Your task to perform on an android device: check the backup settings in the google photos Image 0: 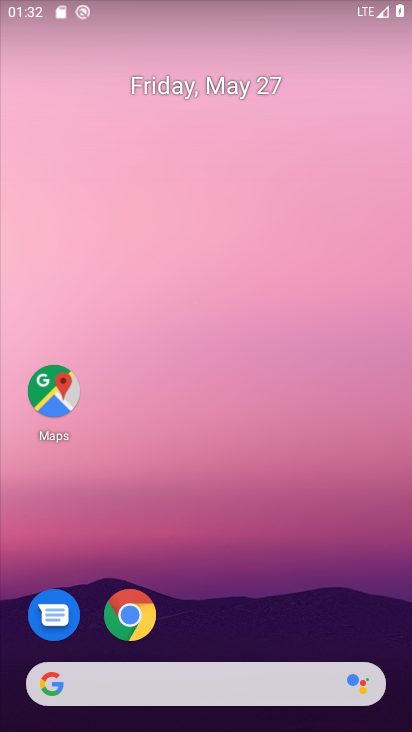
Step 0: drag from (326, 601) to (327, 258)
Your task to perform on an android device: check the backup settings in the google photos Image 1: 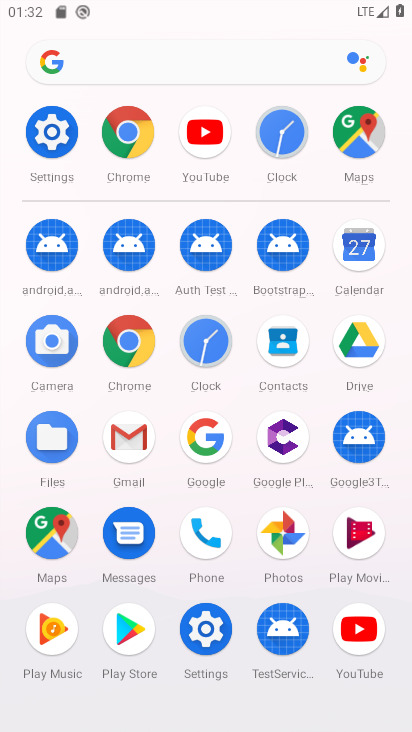
Step 1: click (286, 555)
Your task to perform on an android device: check the backup settings in the google photos Image 2: 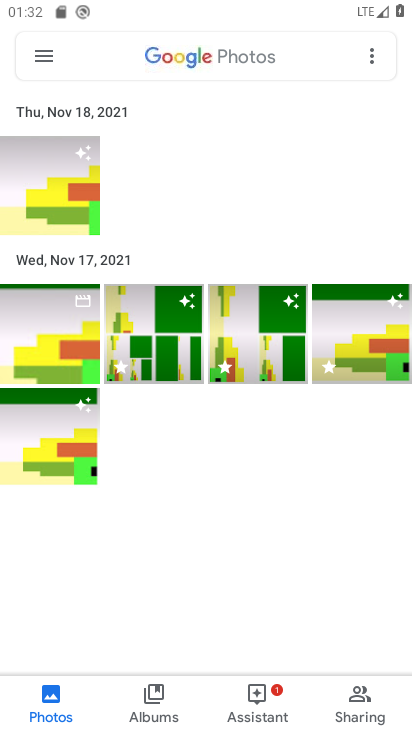
Step 2: click (46, 63)
Your task to perform on an android device: check the backup settings in the google photos Image 3: 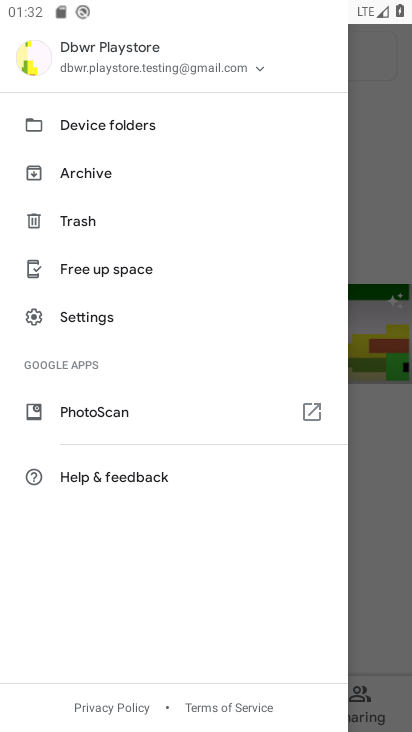
Step 3: click (155, 320)
Your task to perform on an android device: check the backup settings in the google photos Image 4: 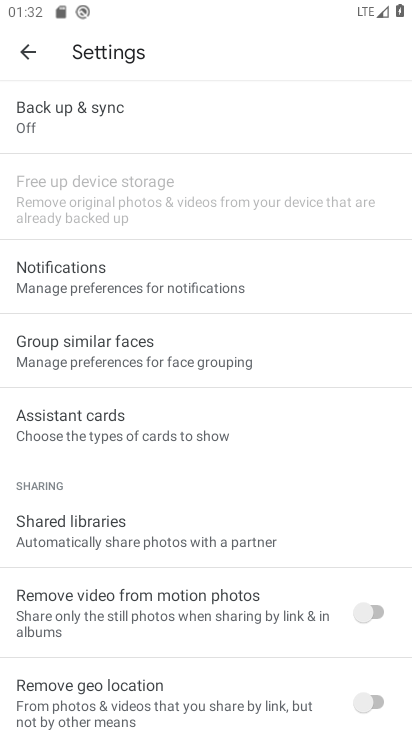
Step 4: drag from (330, 439) to (323, 355)
Your task to perform on an android device: check the backup settings in the google photos Image 5: 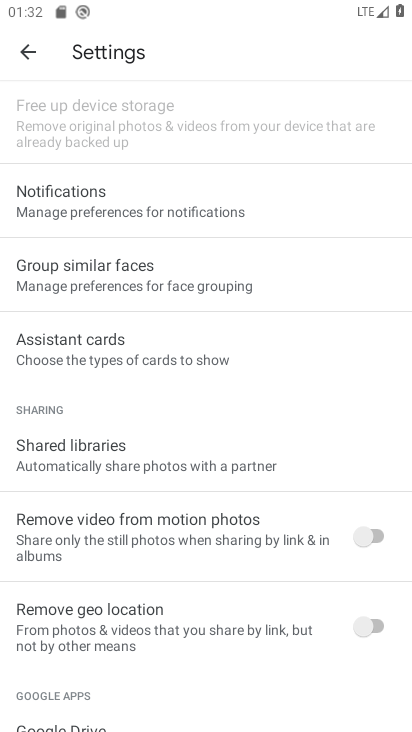
Step 5: drag from (319, 499) to (321, 401)
Your task to perform on an android device: check the backup settings in the google photos Image 6: 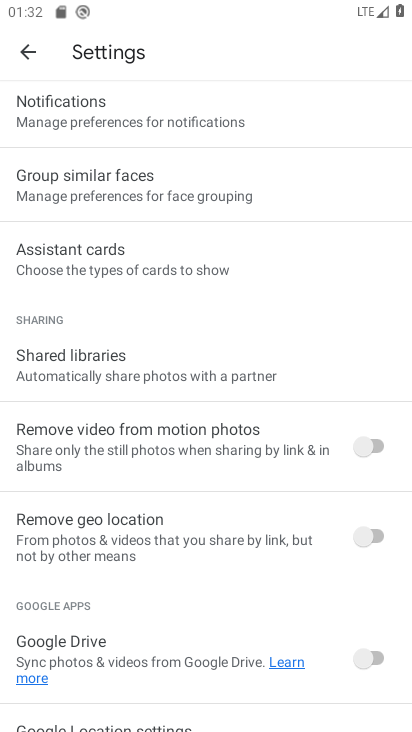
Step 6: drag from (325, 523) to (320, 426)
Your task to perform on an android device: check the backup settings in the google photos Image 7: 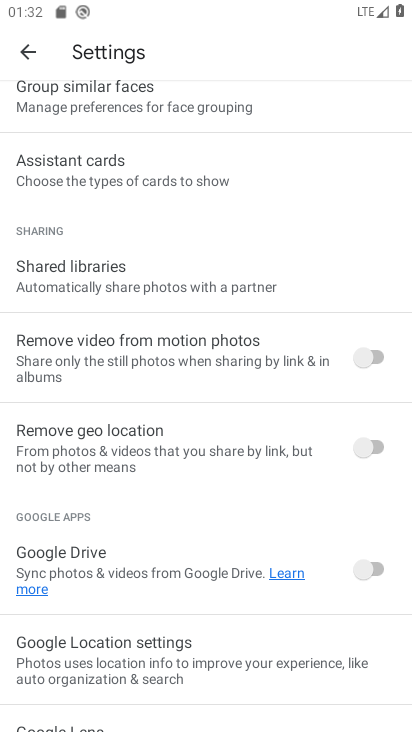
Step 7: drag from (321, 505) to (323, 433)
Your task to perform on an android device: check the backup settings in the google photos Image 8: 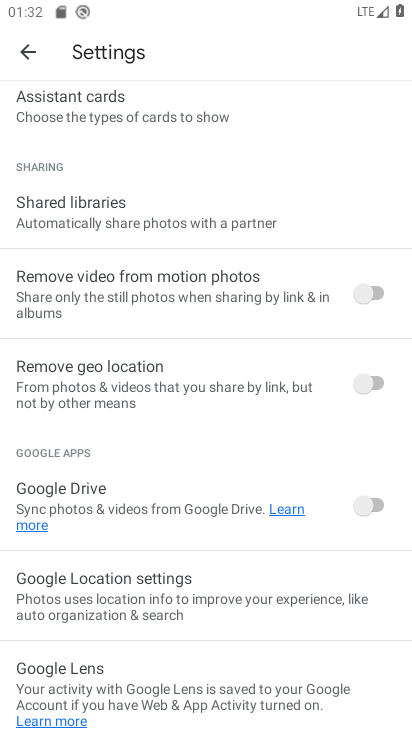
Step 8: drag from (323, 520) to (323, 413)
Your task to perform on an android device: check the backup settings in the google photos Image 9: 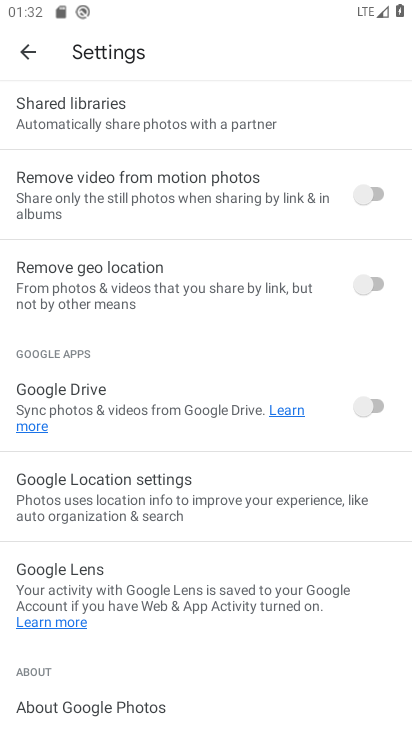
Step 9: drag from (321, 524) to (323, 429)
Your task to perform on an android device: check the backup settings in the google photos Image 10: 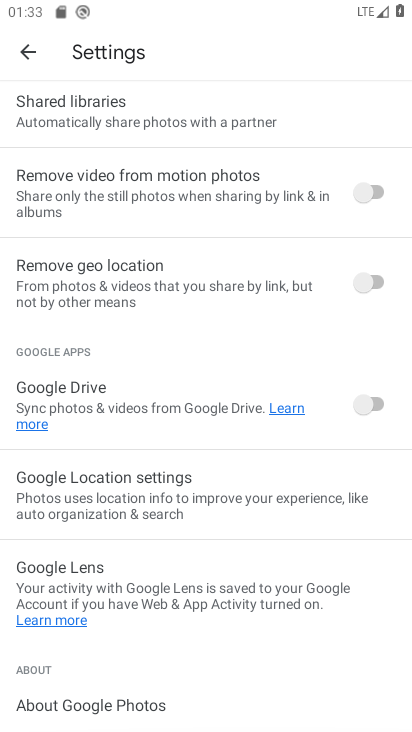
Step 10: drag from (305, 295) to (314, 438)
Your task to perform on an android device: check the backup settings in the google photos Image 11: 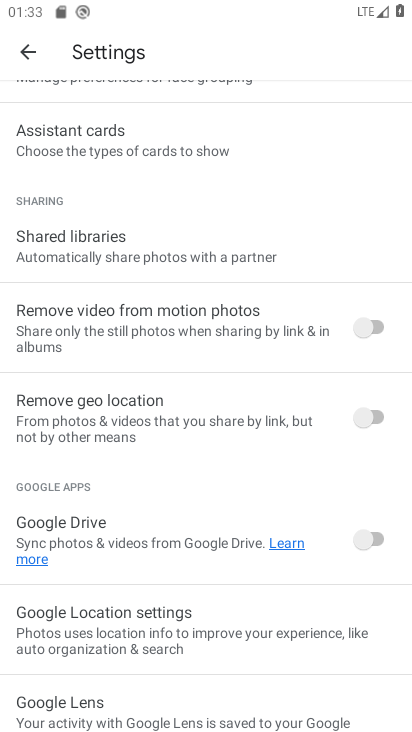
Step 11: drag from (318, 247) to (328, 360)
Your task to perform on an android device: check the backup settings in the google photos Image 12: 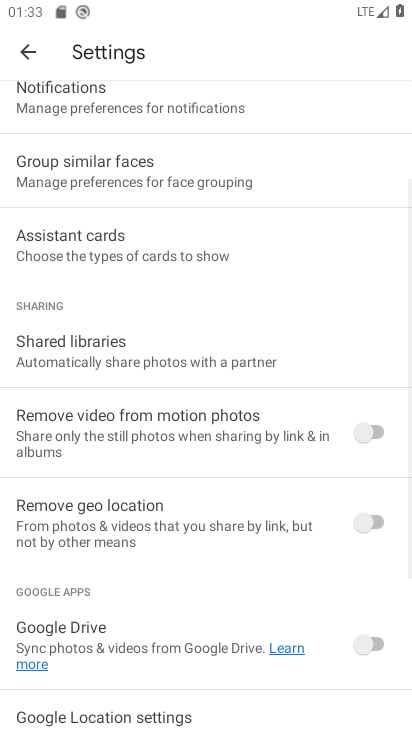
Step 12: drag from (323, 229) to (332, 358)
Your task to perform on an android device: check the backup settings in the google photos Image 13: 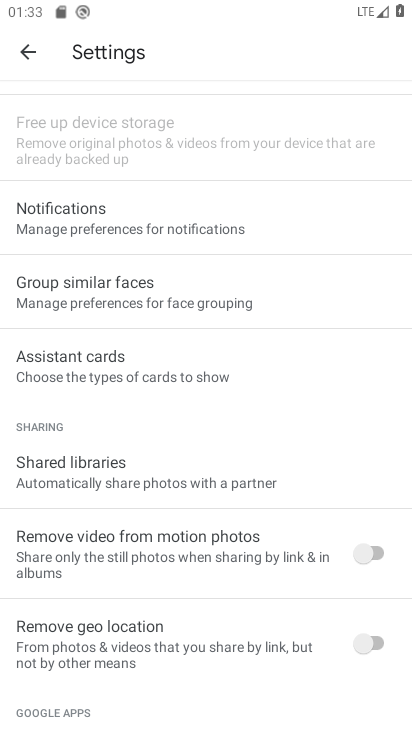
Step 13: drag from (330, 200) to (347, 343)
Your task to perform on an android device: check the backup settings in the google photos Image 14: 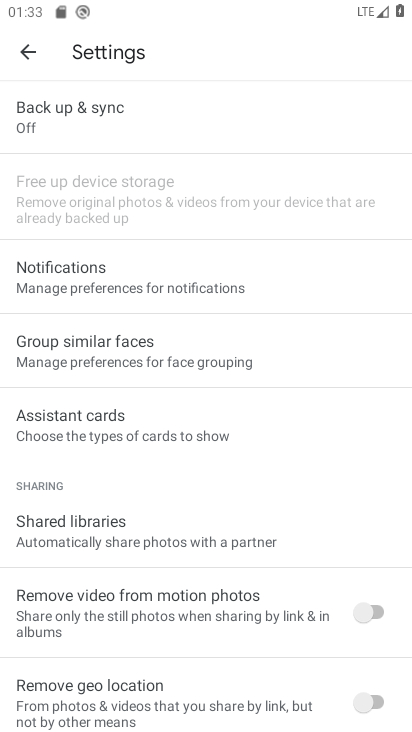
Step 14: click (97, 115)
Your task to perform on an android device: check the backup settings in the google photos Image 15: 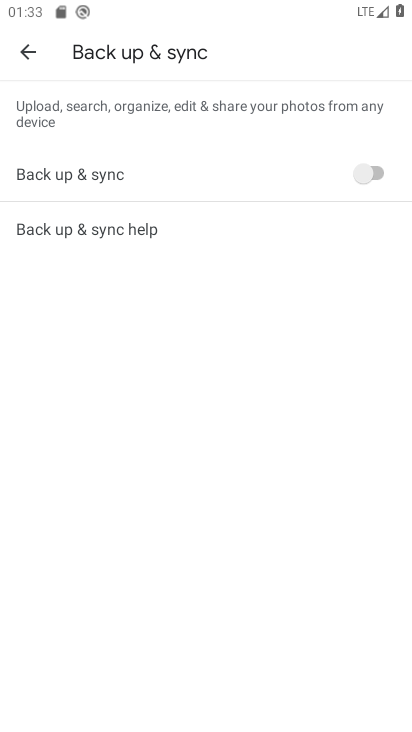
Step 15: task complete